Your task to perform on an android device: refresh tabs in the chrome app Image 0: 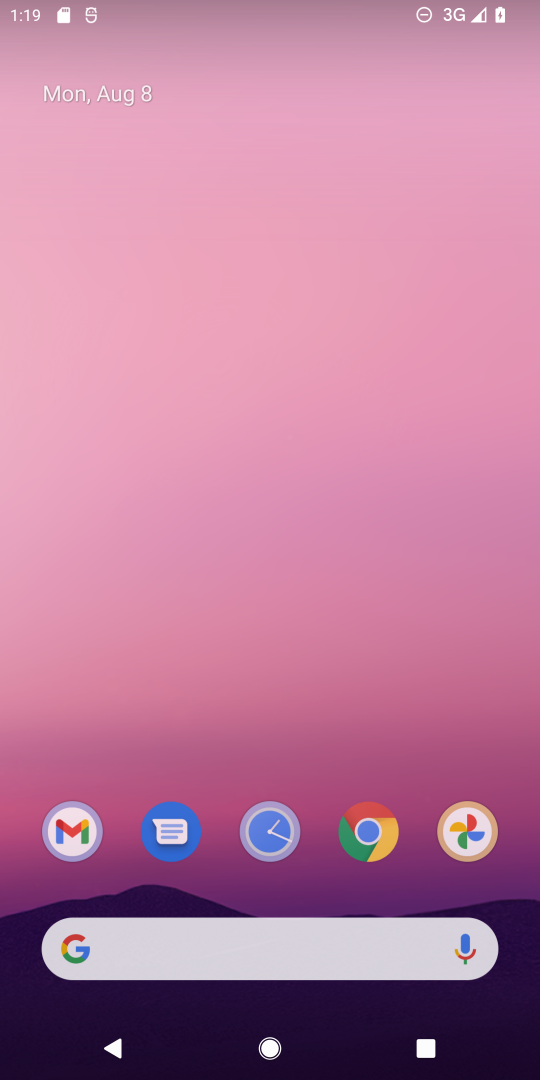
Step 0: press home button
Your task to perform on an android device: refresh tabs in the chrome app Image 1: 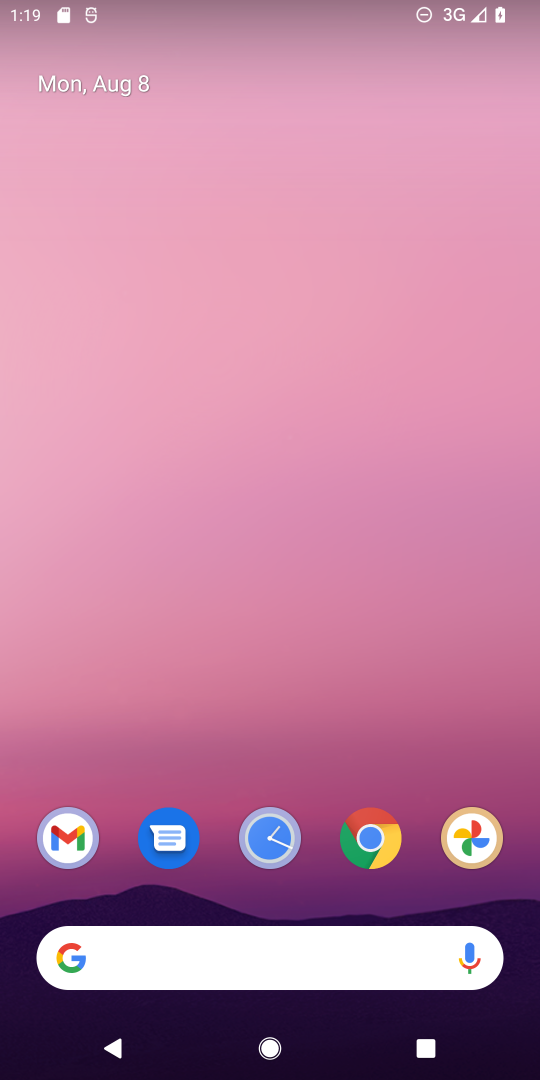
Step 1: click (371, 846)
Your task to perform on an android device: refresh tabs in the chrome app Image 2: 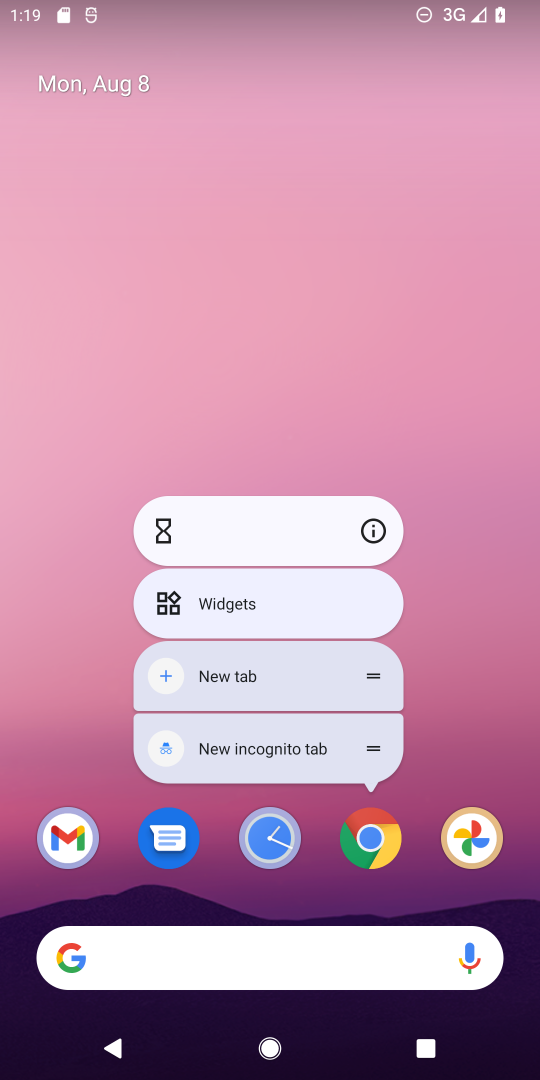
Step 2: click (371, 846)
Your task to perform on an android device: refresh tabs in the chrome app Image 3: 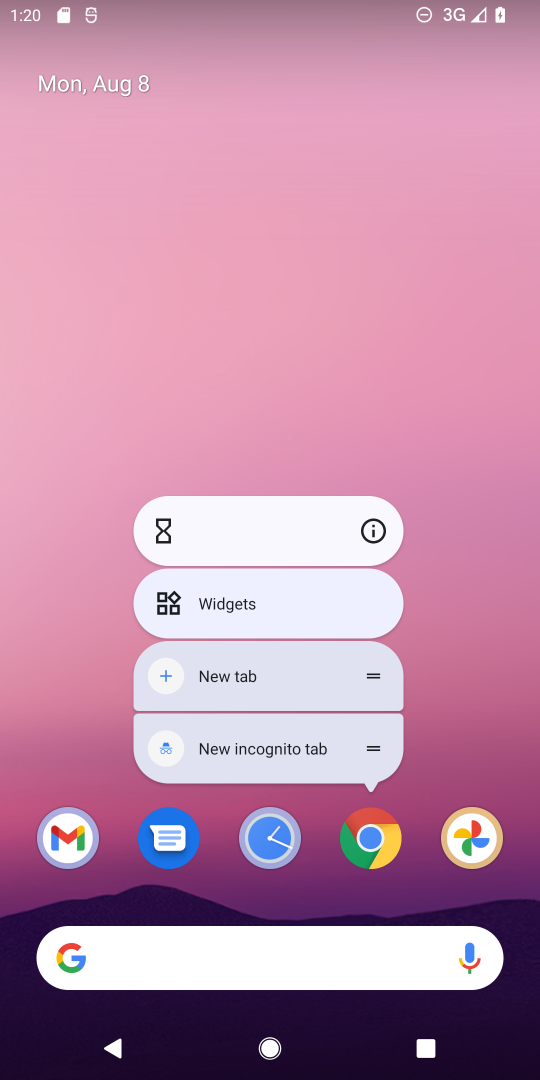
Step 3: click (371, 846)
Your task to perform on an android device: refresh tabs in the chrome app Image 4: 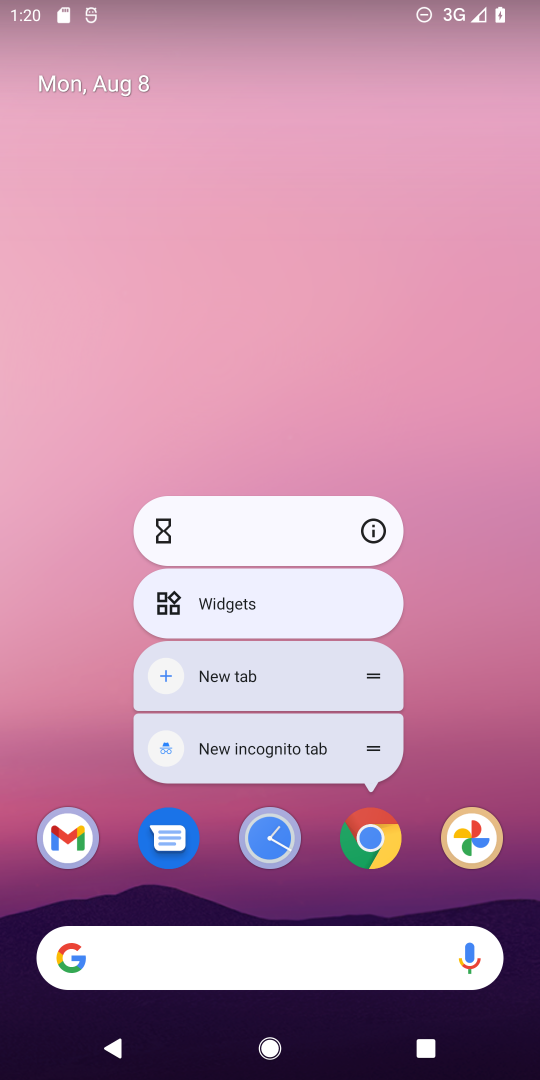
Step 4: click (338, 399)
Your task to perform on an android device: refresh tabs in the chrome app Image 5: 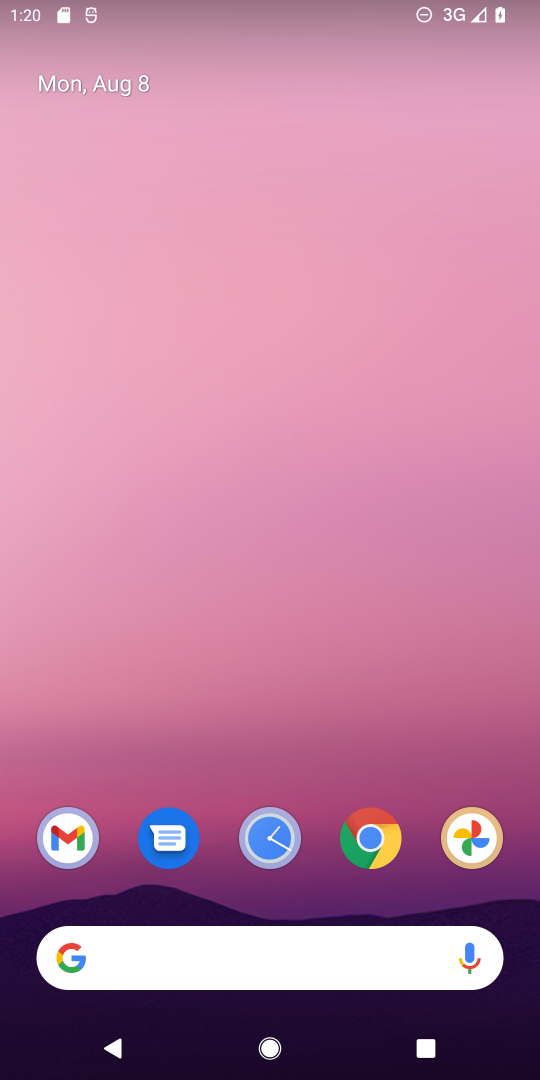
Step 5: click (374, 844)
Your task to perform on an android device: refresh tabs in the chrome app Image 6: 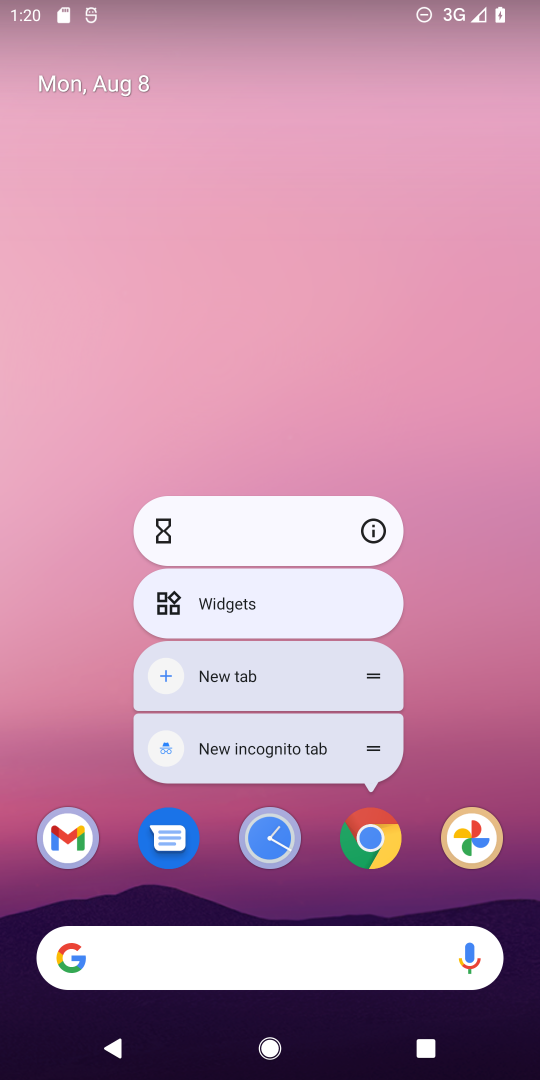
Step 6: click (374, 844)
Your task to perform on an android device: refresh tabs in the chrome app Image 7: 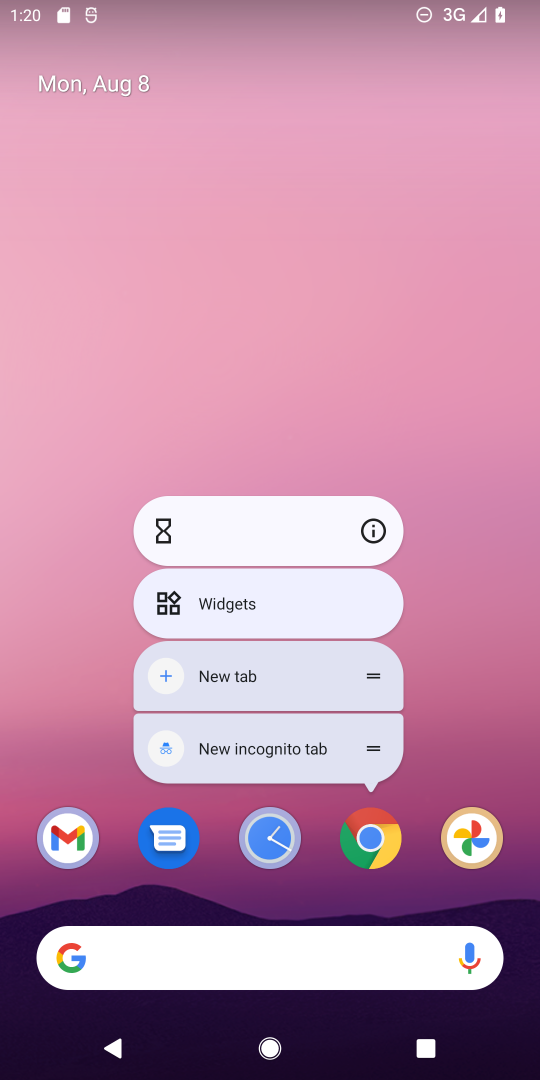
Step 7: click (439, 449)
Your task to perform on an android device: refresh tabs in the chrome app Image 8: 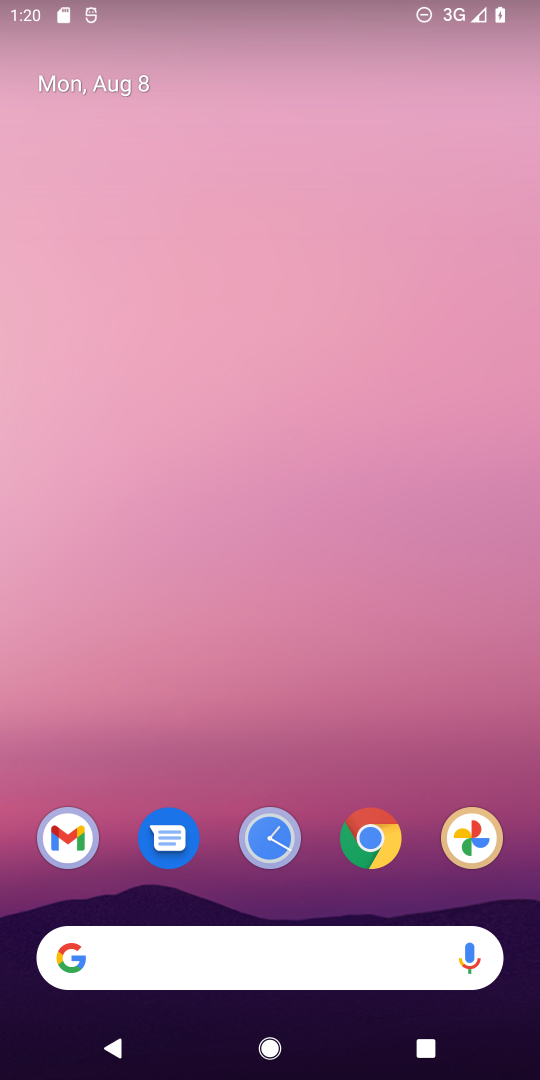
Step 8: click (373, 836)
Your task to perform on an android device: refresh tabs in the chrome app Image 9: 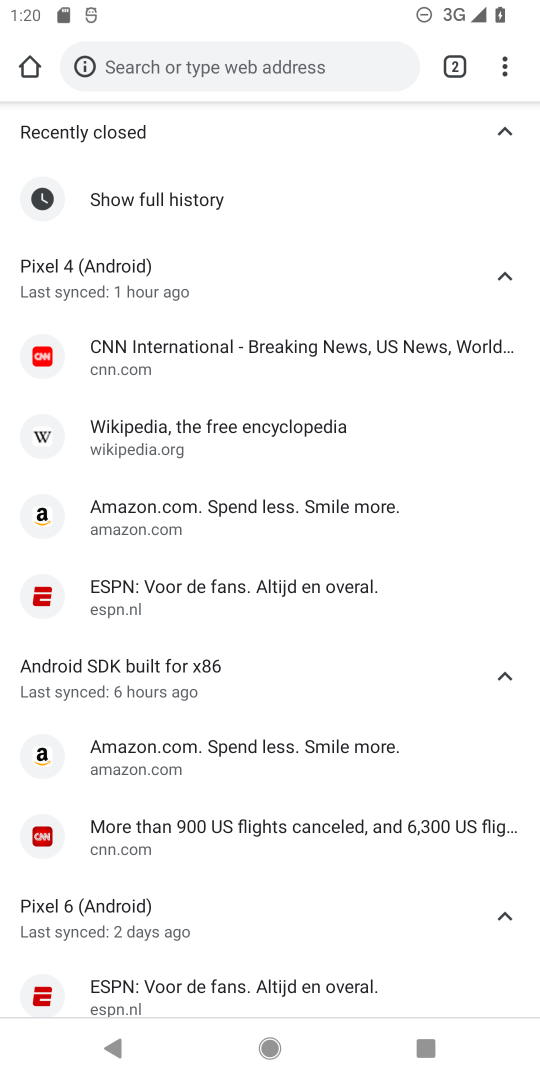
Step 9: click (510, 61)
Your task to perform on an android device: refresh tabs in the chrome app Image 10: 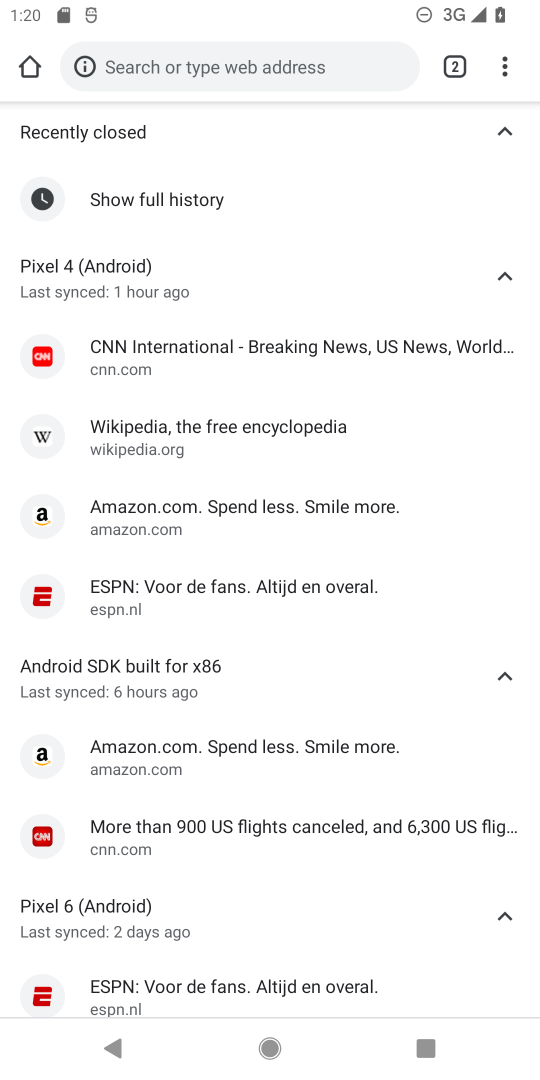
Step 10: task complete